Your task to perform on an android device: check google app version Image 0: 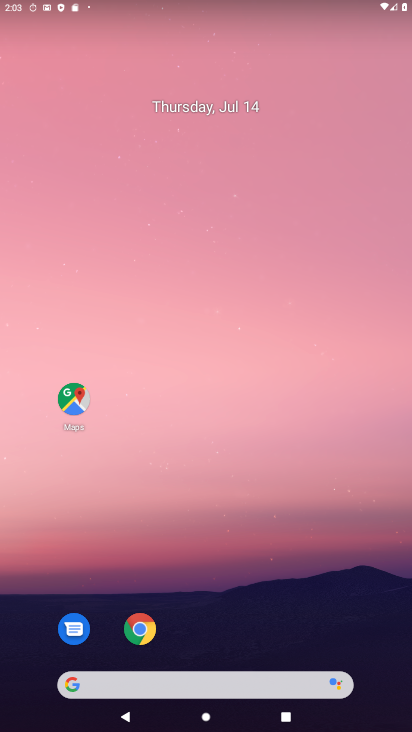
Step 0: click (69, 680)
Your task to perform on an android device: check google app version Image 1: 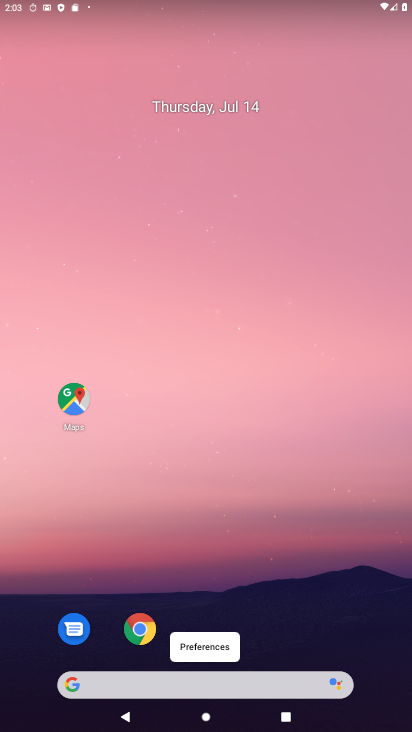
Step 1: click (74, 688)
Your task to perform on an android device: check google app version Image 2: 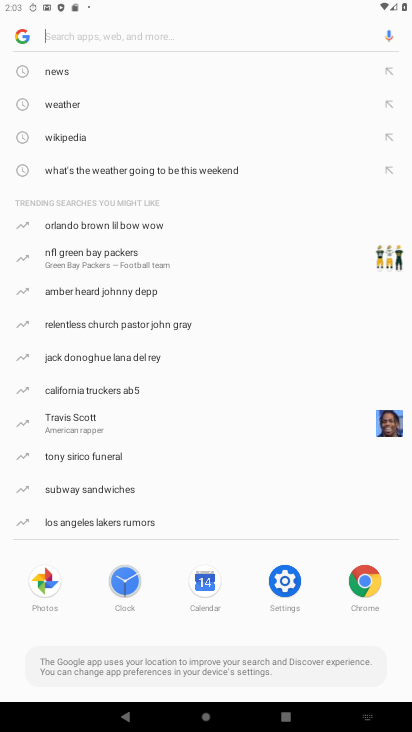
Step 2: click (23, 37)
Your task to perform on an android device: check google app version Image 3: 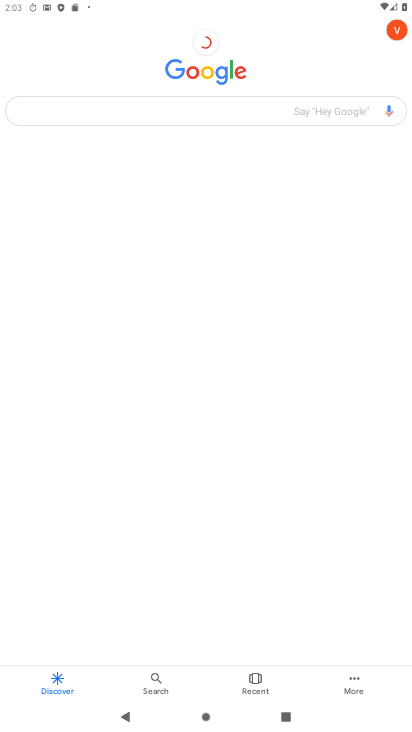
Step 3: click (351, 679)
Your task to perform on an android device: check google app version Image 4: 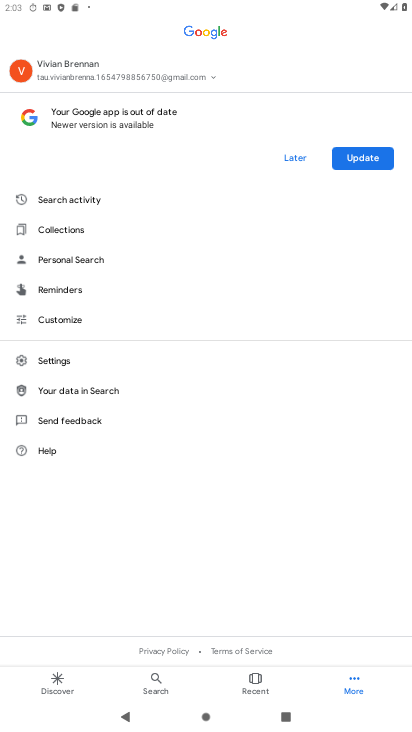
Step 4: click (70, 358)
Your task to perform on an android device: check google app version Image 5: 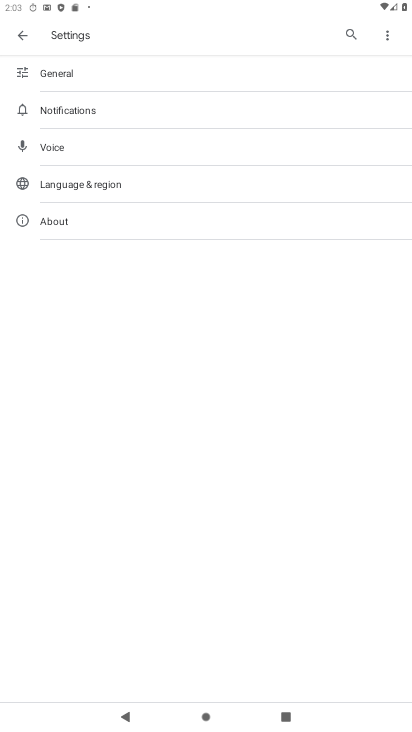
Step 5: click (71, 226)
Your task to perform on an android device: check google app version Image 6: 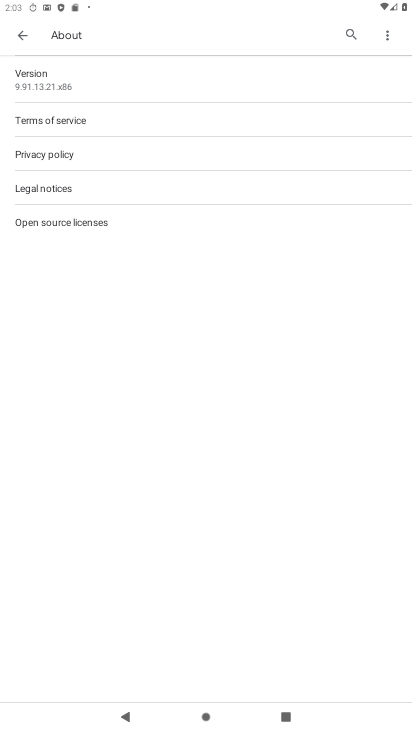
Step 6: task complete